Your task to perform on an android device: What's the weather today? Image 0: 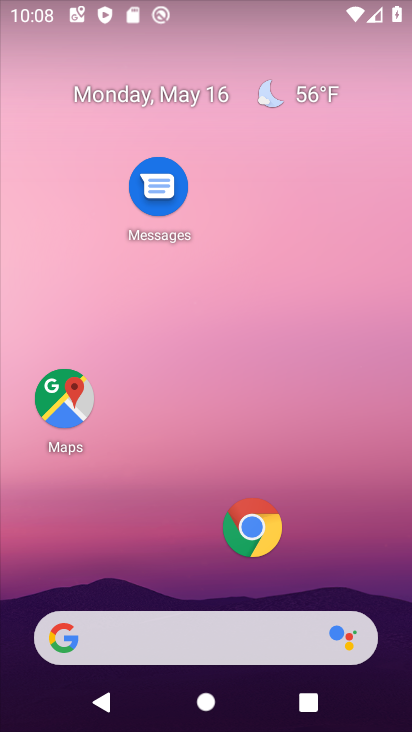
Step 0: drag from (173, 541) to (160, 64)
Your task to perform on an android device: What's the weather today? Image 1: 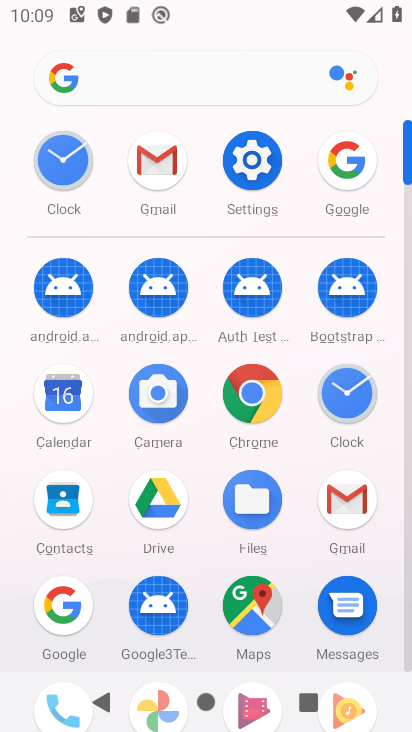
Step 1: click (344, 160)
Your task to perform on an android device: What's the weather today? Image 2: 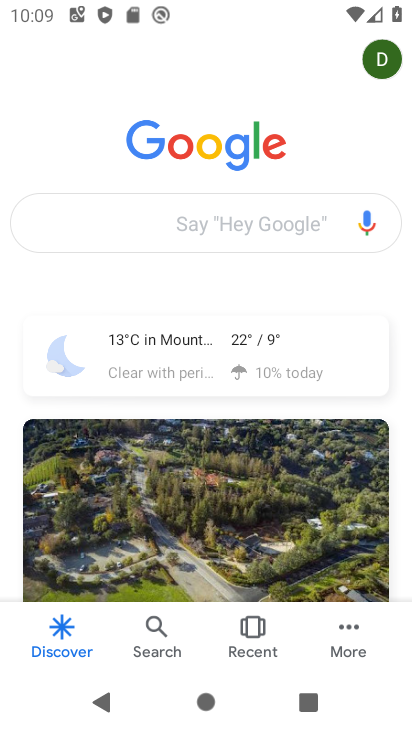
Step 2: click (160, 212)
Your task to perform on an android device: What's the weather today? Image 3: 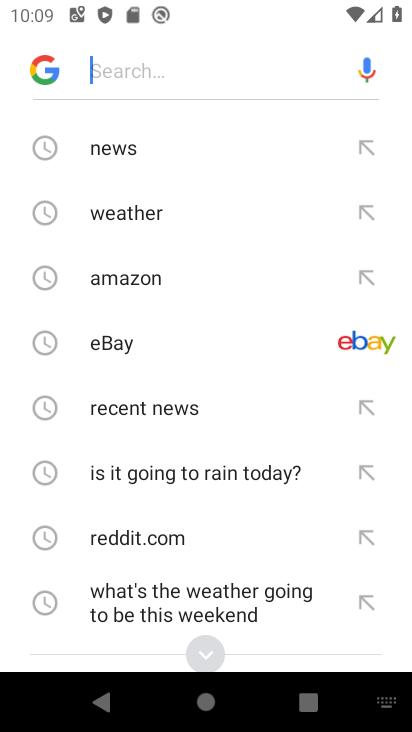
Step 3: type "weather today"
Your task to perform on an android device: What's the weather today? Image 4: 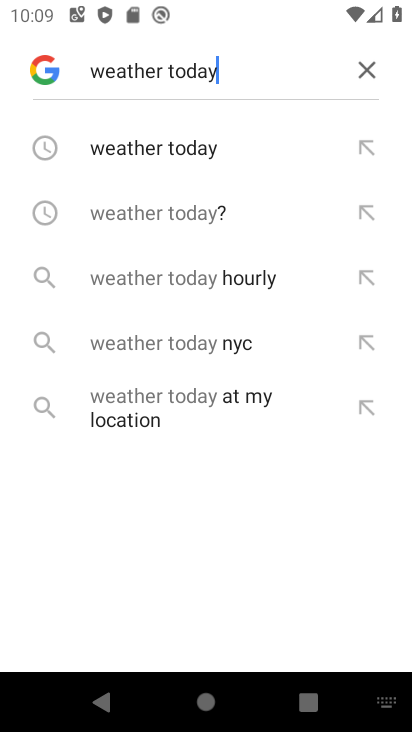
Step 4: click (171, 150)
Your task to perform on an android device: What's the weather today? Image 5: 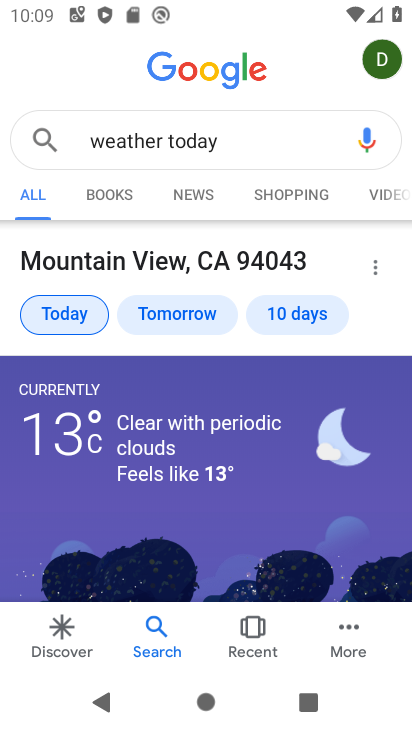
Step 5: task complete